Your task to perform on an android device: Open my contact list Image 0: 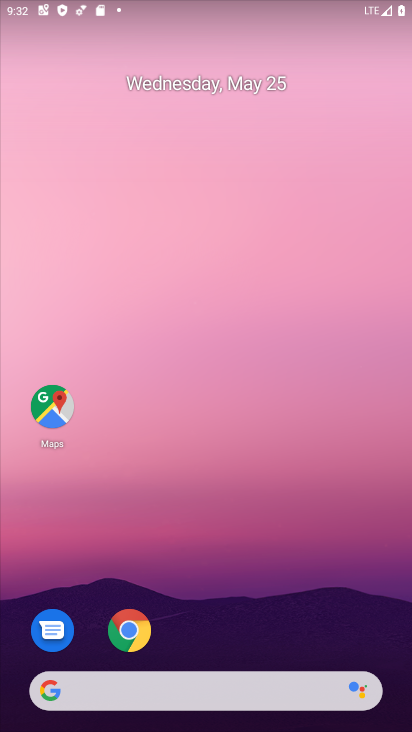
Step 0: drag from (232, 502) to (268, 221)
Your task to perform on an android device: Open my contact list Image 1: 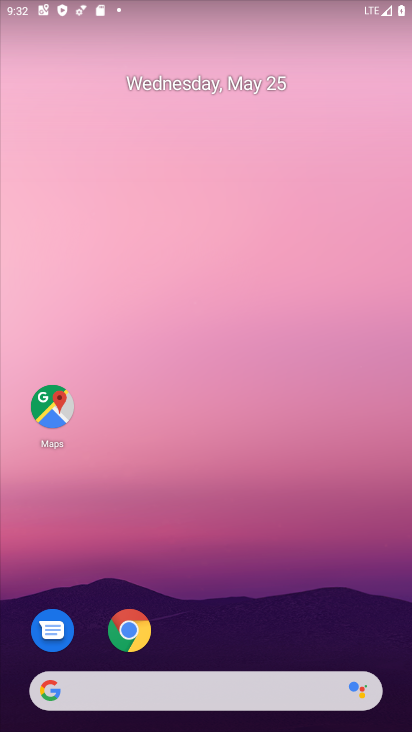
Step 1: drag from (208, 611) to (266, 236)
Your task to perform on an android device: Open my contact list Image 2: 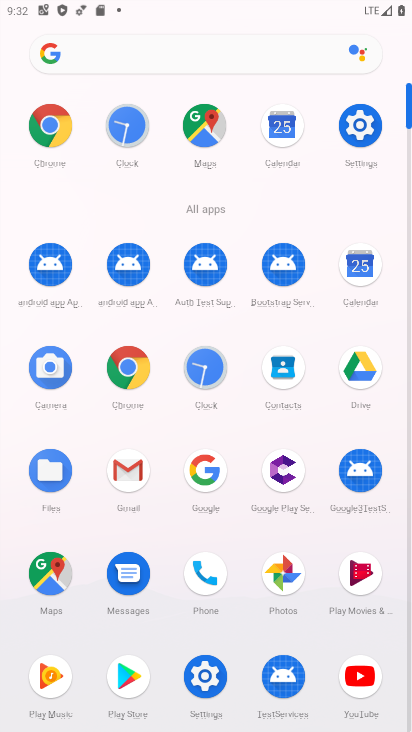
Step 2: click (275, 363)
Your task to perform on an android device: Open my contact list Image 3: 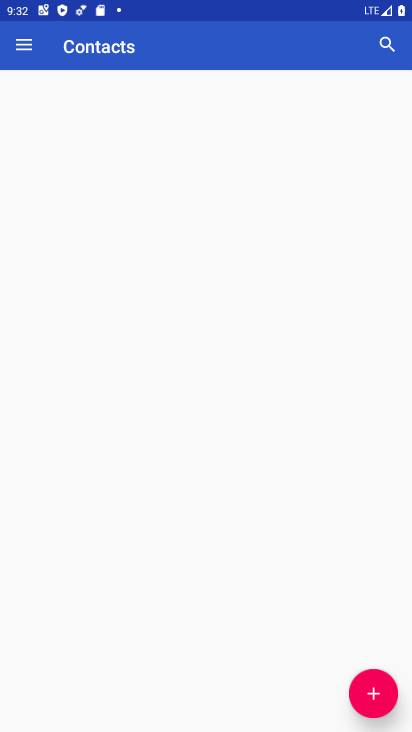
Step 3: task complete